Your task to perform on an android device: turn off picture-in-picture Image 0: 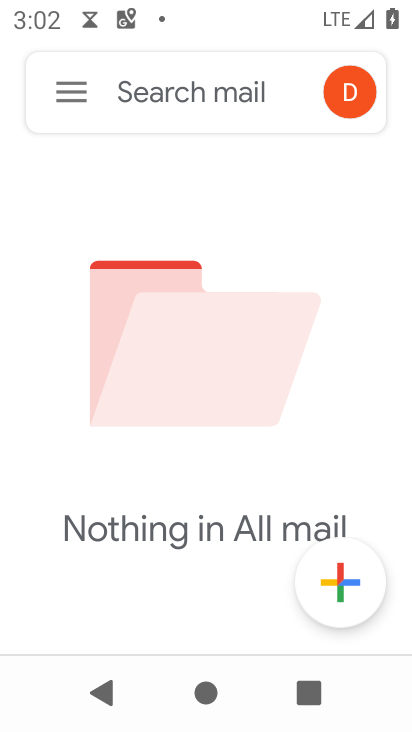
Step 0: drag from (366, 514) to (305, 0)
Your task to perform on an android device: turn off picture-in-picture Image 1: 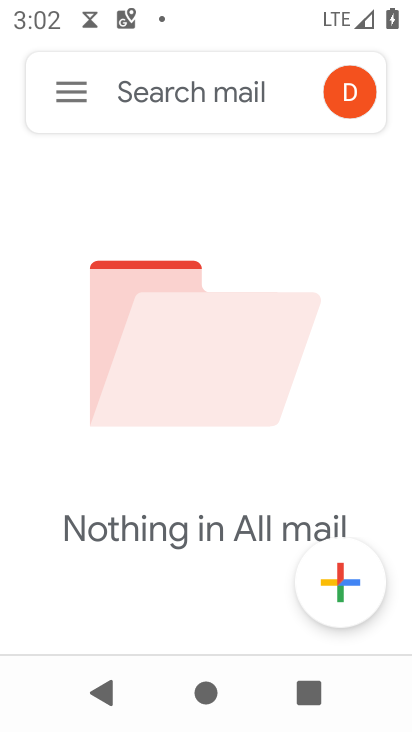
Step 1: press home button
Your task to perform on an android device: turn off picture-in-picture Image 2: 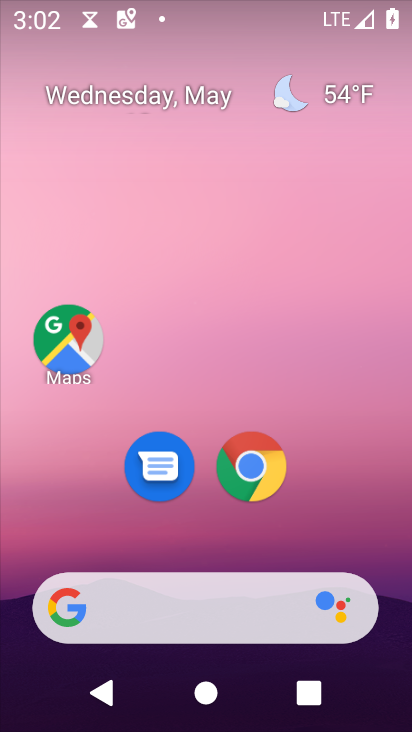
Step 2: click (266, 480)
Your task to perform on an android device: turn off picture-in-picture Image 3: 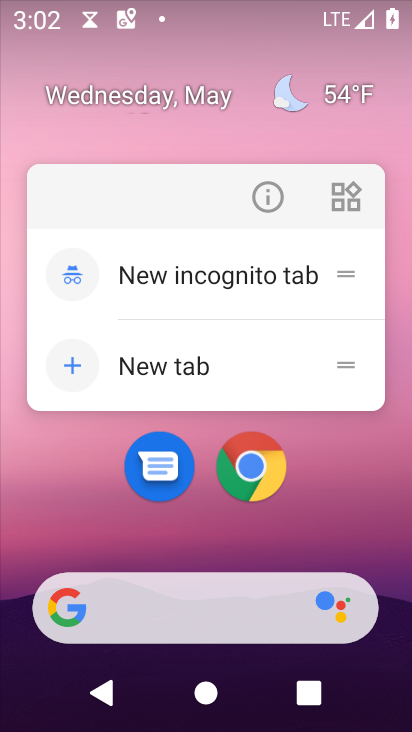
Step 3: click (270, 200)
Your task to perform on an android device: turn off picture-in-picture Image 4: 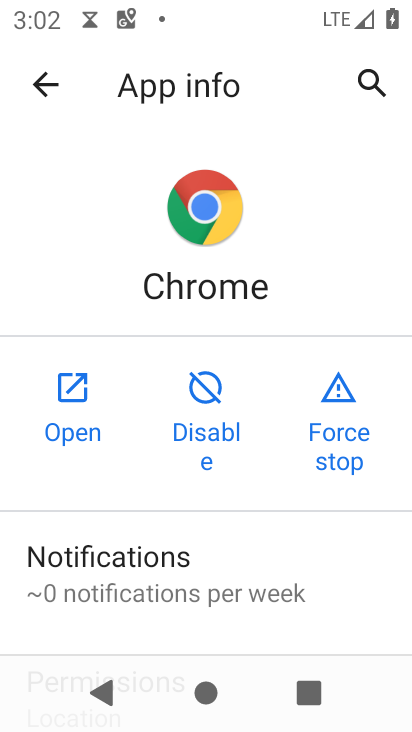
Step 4: drag from (341, 611) to (309, 206)
Your task to perform on an android device: turn off picture-in-picture Image 5: 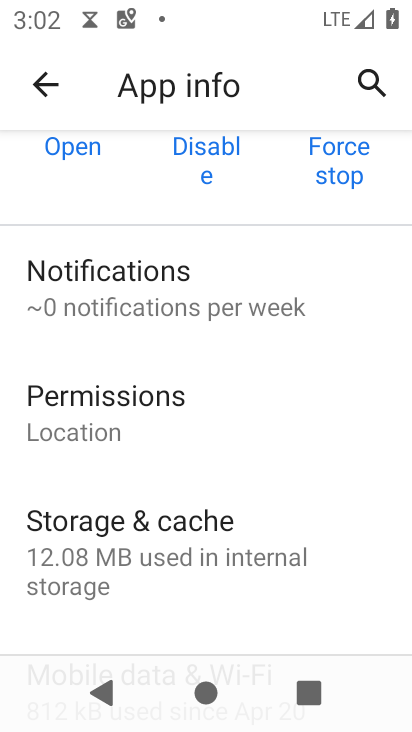
Step 5: drag from (327, 600) to (261, 210)
Your task to perform on an android device: turn off picture-in-picture Image 6: 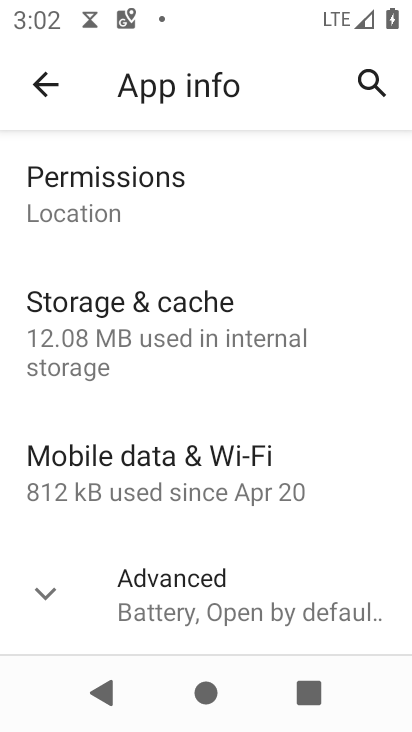
Step 6: click (228, 607)
Your task to perform on an android device: turn off picture-in-picture Image 7: 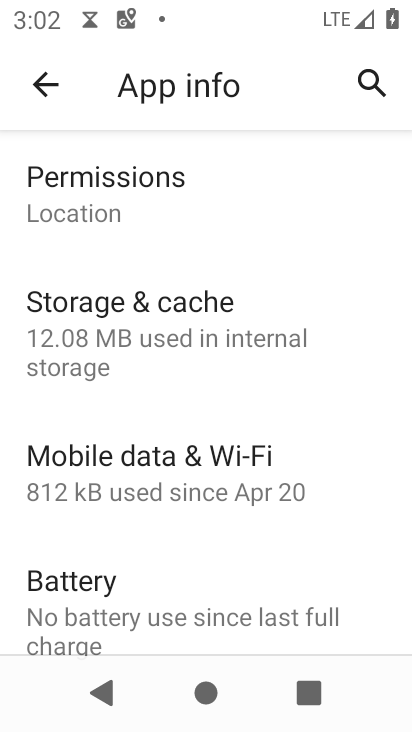
Step 7: drag from (228, 607) to (213, 221)
Your task to perform on an android device: turn off picture-in-picture Image 8: 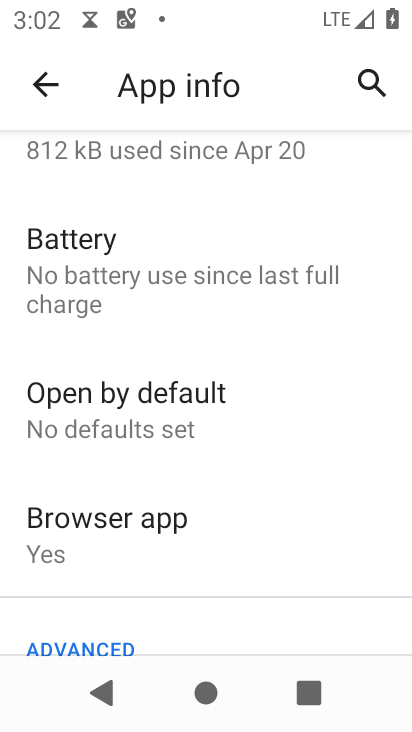
Step 8: drag from (233, 630) to (198, 284)
Your task to perform on an android device: turn off picture-in-picture Image 9: 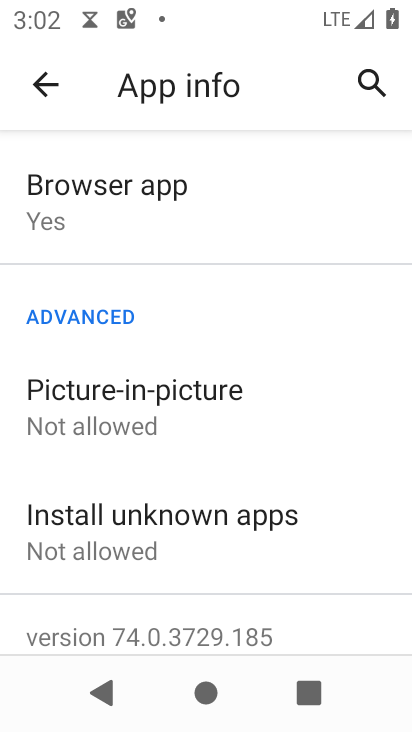
Step 9: click (232, 421)
Your task to perform on an android device: turn off picture-in-picture Image 10: 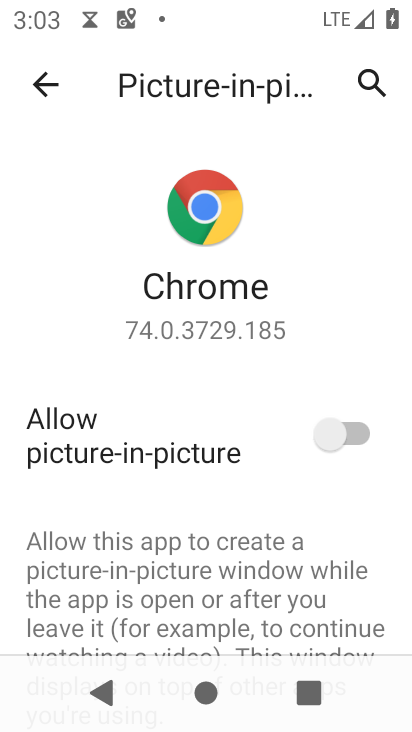
Step 10: task complete